Your task to perform on an android device: Open Google Chrome Image 0: 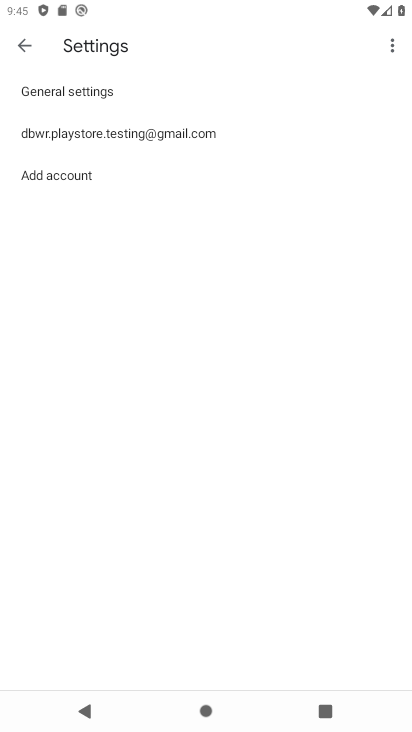
Step 0: press home button
Your task to perform on an android device: Open Google Chrome Image 1: 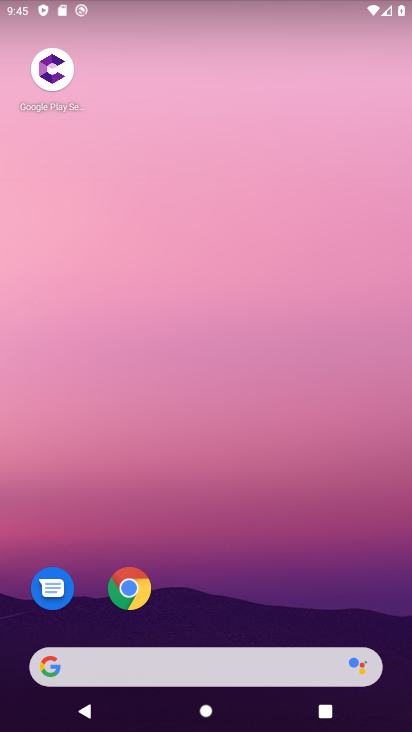
Step 1: click (151, 591)
Your task to perform on an android device: Open Google Chrome Image 2: 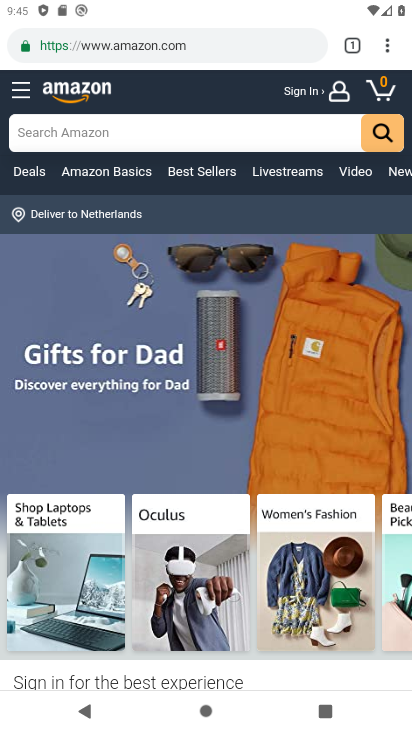
Step 2: task complete